Your task to perform on an android device: Search for vegetarian restaurants on Maps Image 0: 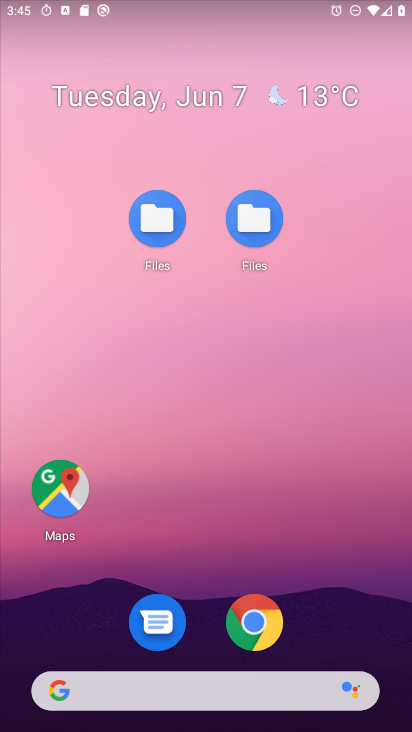
Step 0: click (61, 486)
Your task to perform on an android device: Search for vegetarian restaurants on Maps Image 1: 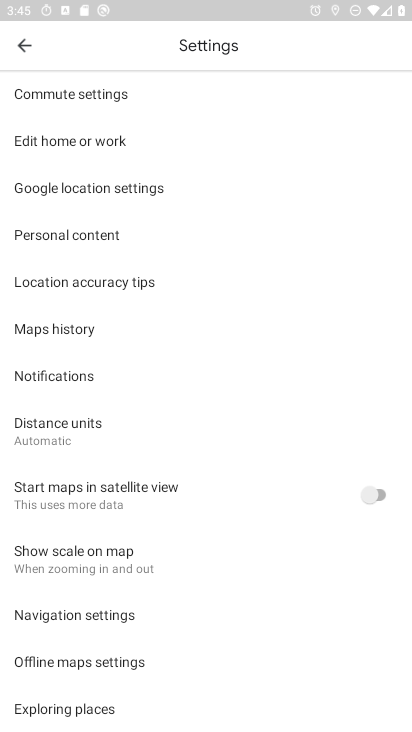
Step 1: click (24, 42)
Your task to perform on an android device: Search for vegetarian restaurants on Maps Image 2: 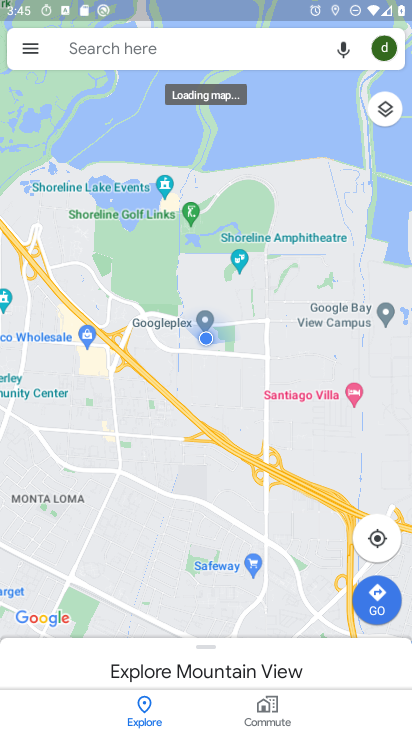
Step 2: click (89, 43)
Your task to perform on an android device: Search for vegetarian restaurants on Maps Image 3: 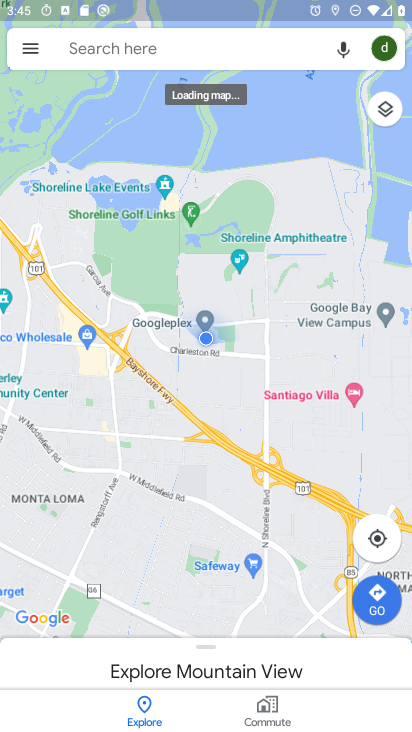
Step 3: click (89, 43)
Your task to perform on an android device: Search for vegetarian restaurants on Maps Image 4: 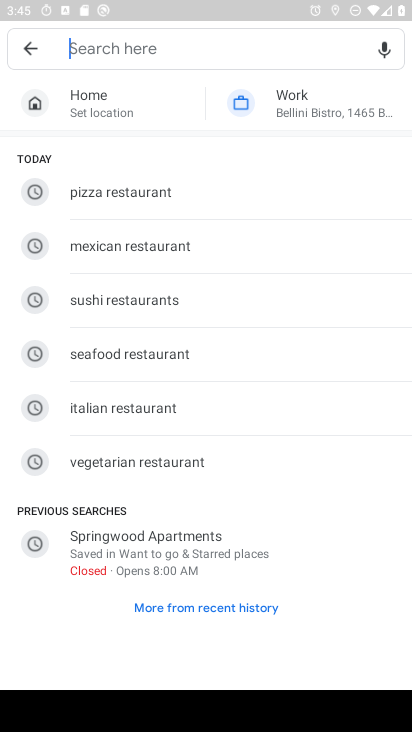
Step 4: click (130, 468)
Your task to perform on an android device: Search for vegetarian restaurants on Maps Image 5: 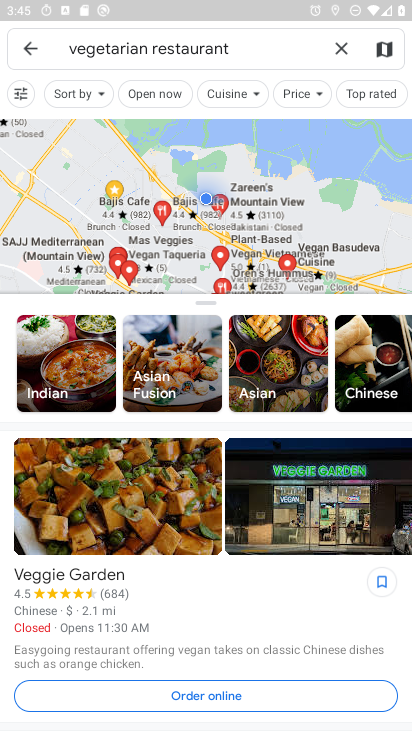
Step 5: task complete